Your task to perform on an android device: Open notification settings Image 0: 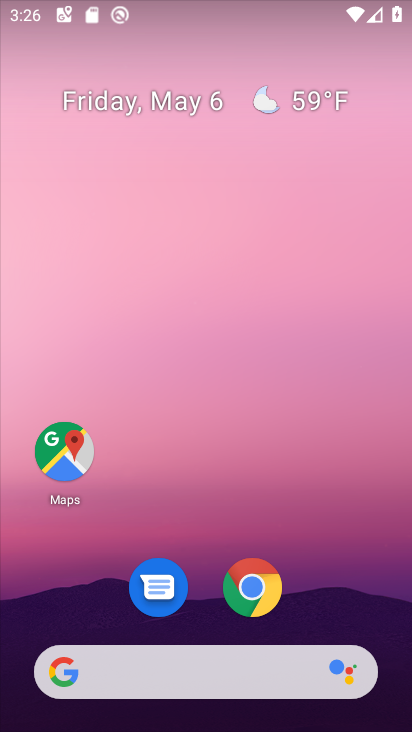
Step 0: drag from (318, 505) to (284, 0)
Your task to perform on an android device: Open notification settings Image 1: 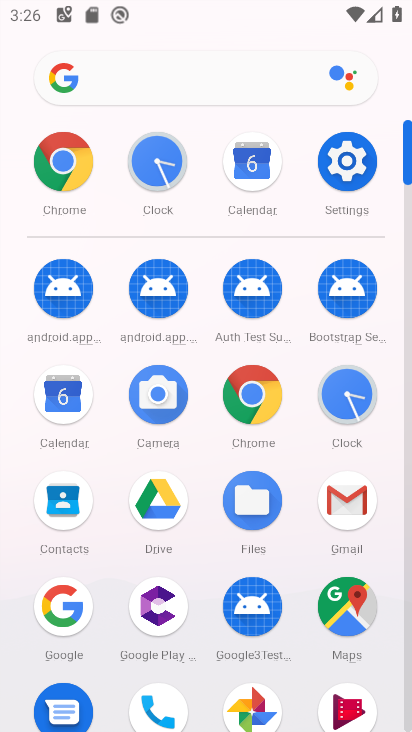
Step 1: click (334, 154)
Your task to perform on an android device: Open notification settings Image 2: 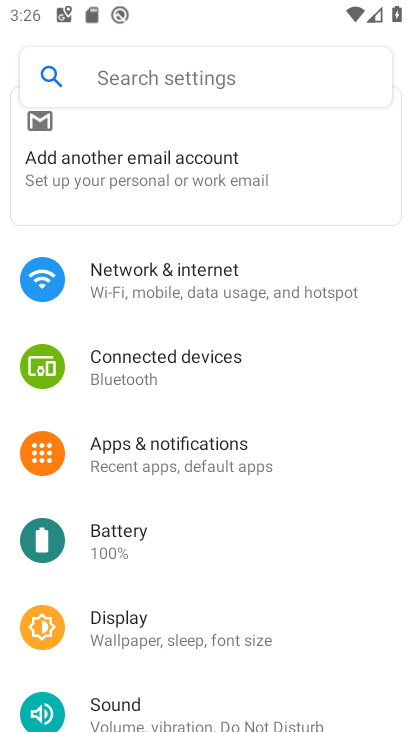
Step 2: click (181, 452)
Your task to perform on an android device: Open notification settings Image 3: 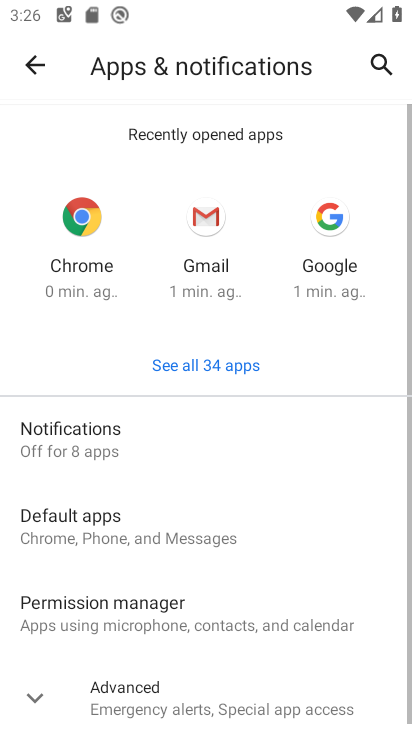
Step 3: click (103, 431)
Your task to perform on an android device: Open notification settings Image 4: 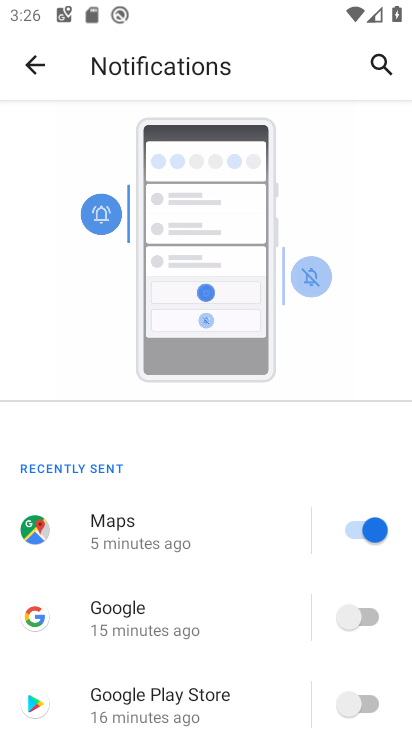
Step 4: task complete